Your task to perform on an android device: find photos in the google photos app Image 0: 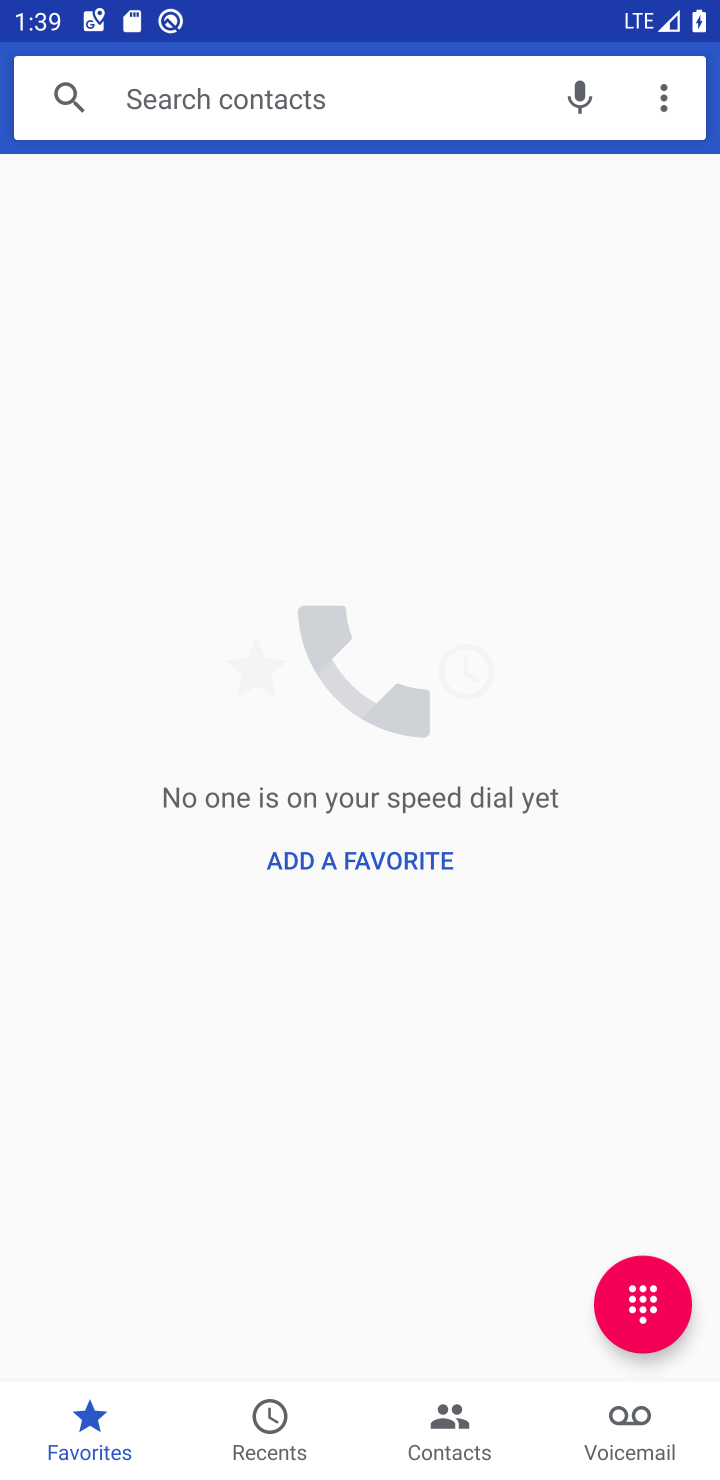
Step 0: press home button
Your task to perform on an android device: find photos in the google photos app Image 1: 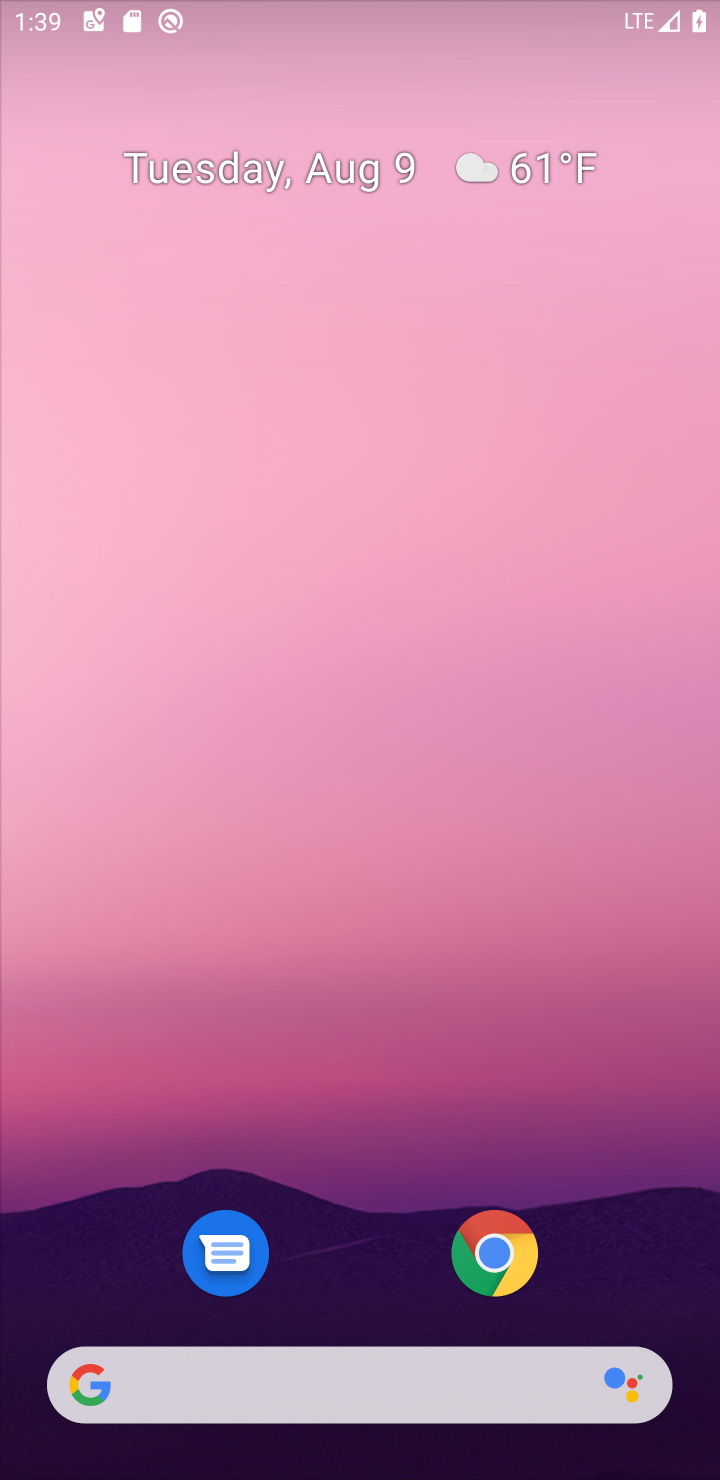
Step 1: drag from (513, 827) to (373, 103)
Your task to perform on an android device: find photos in the google photos app Image 2: 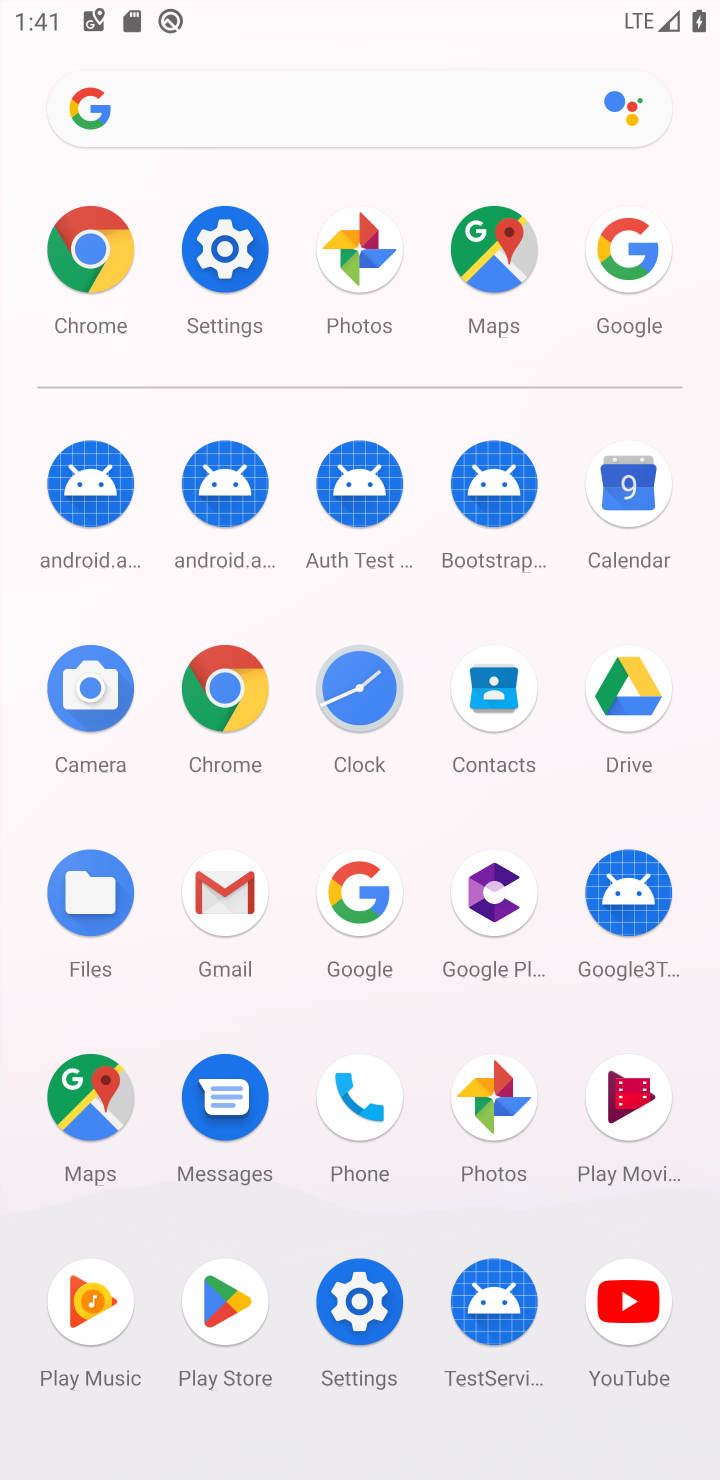
Step 2: click (503, 1092)
Your task to perform on an android device: find photos in the google photos app Image 3: 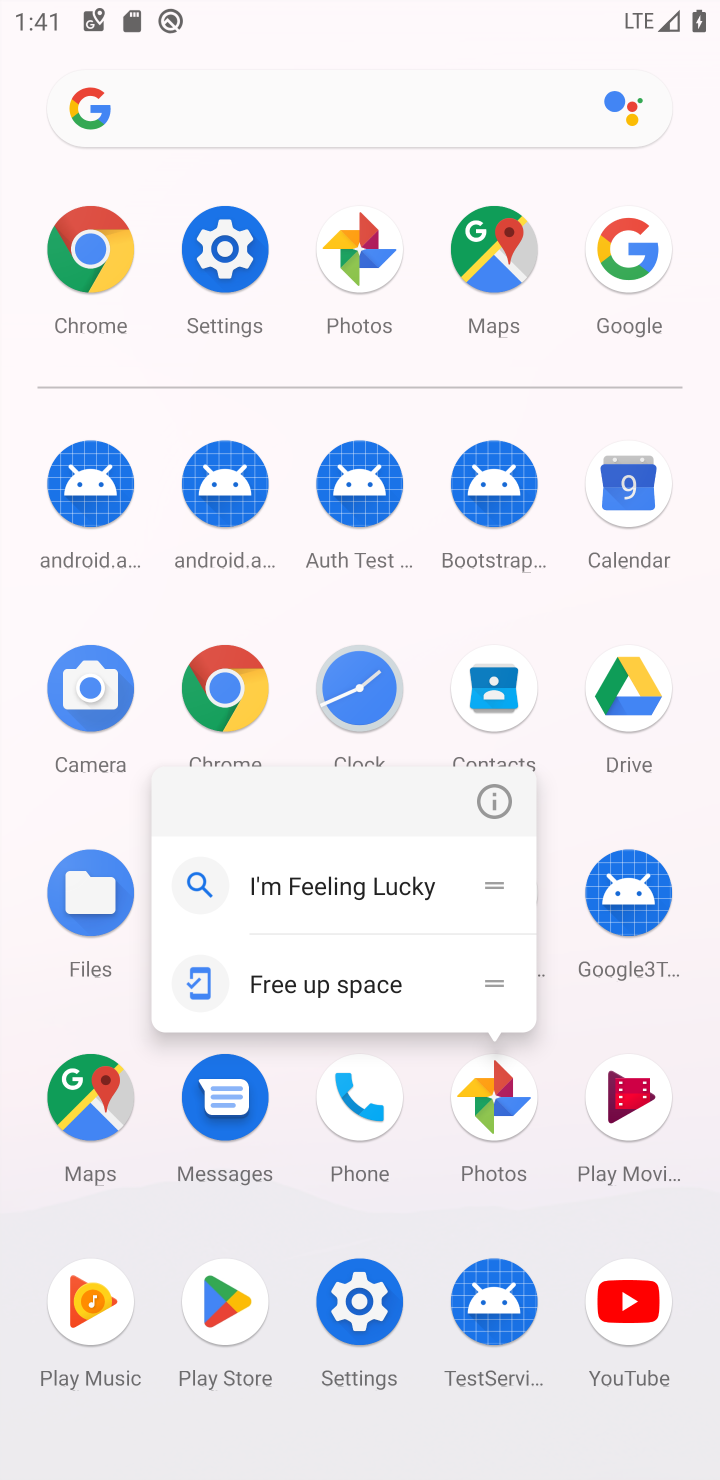
Step 3: click (503, 1092)
Your task to perform on an android device: find photos in the google photos app Image 4: 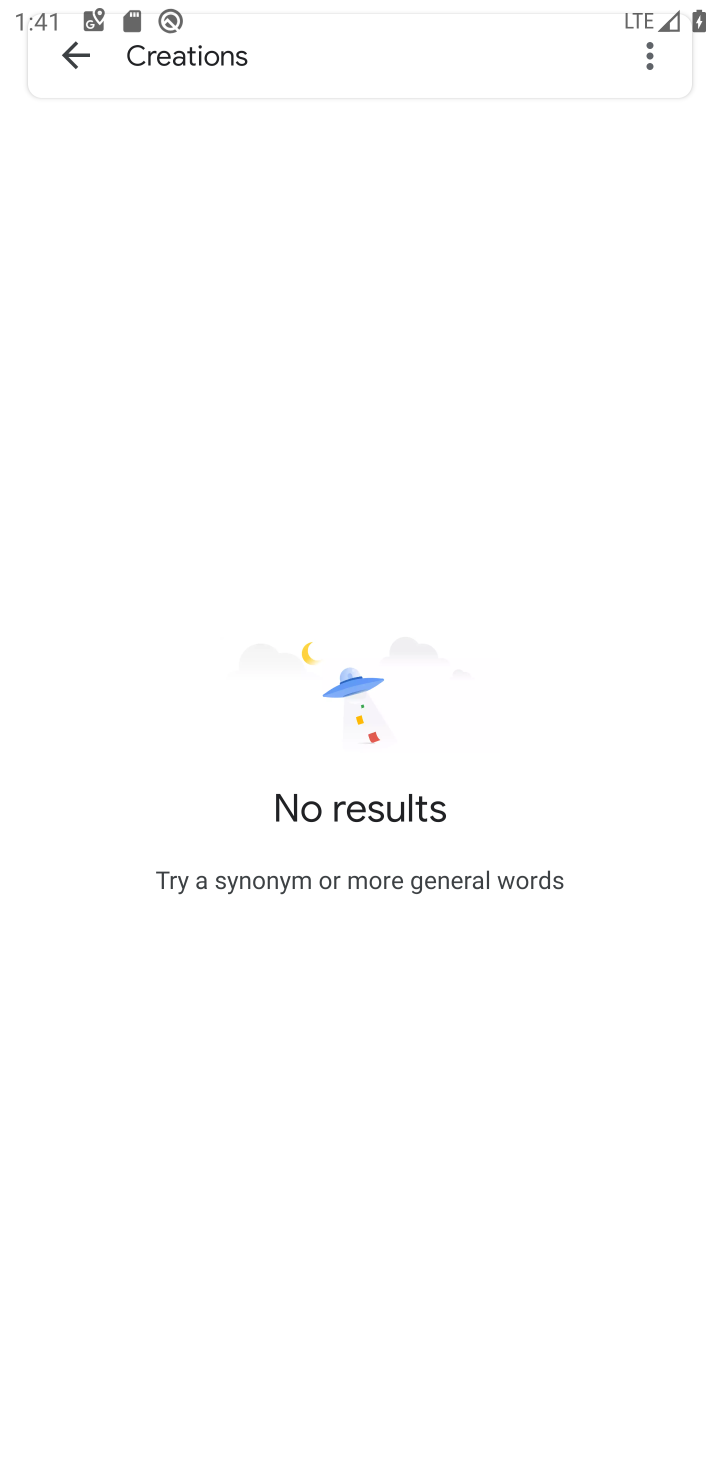
Step 4: task complete